Your task to perform on an android device: turn on data saver in the chrome app Image 0: 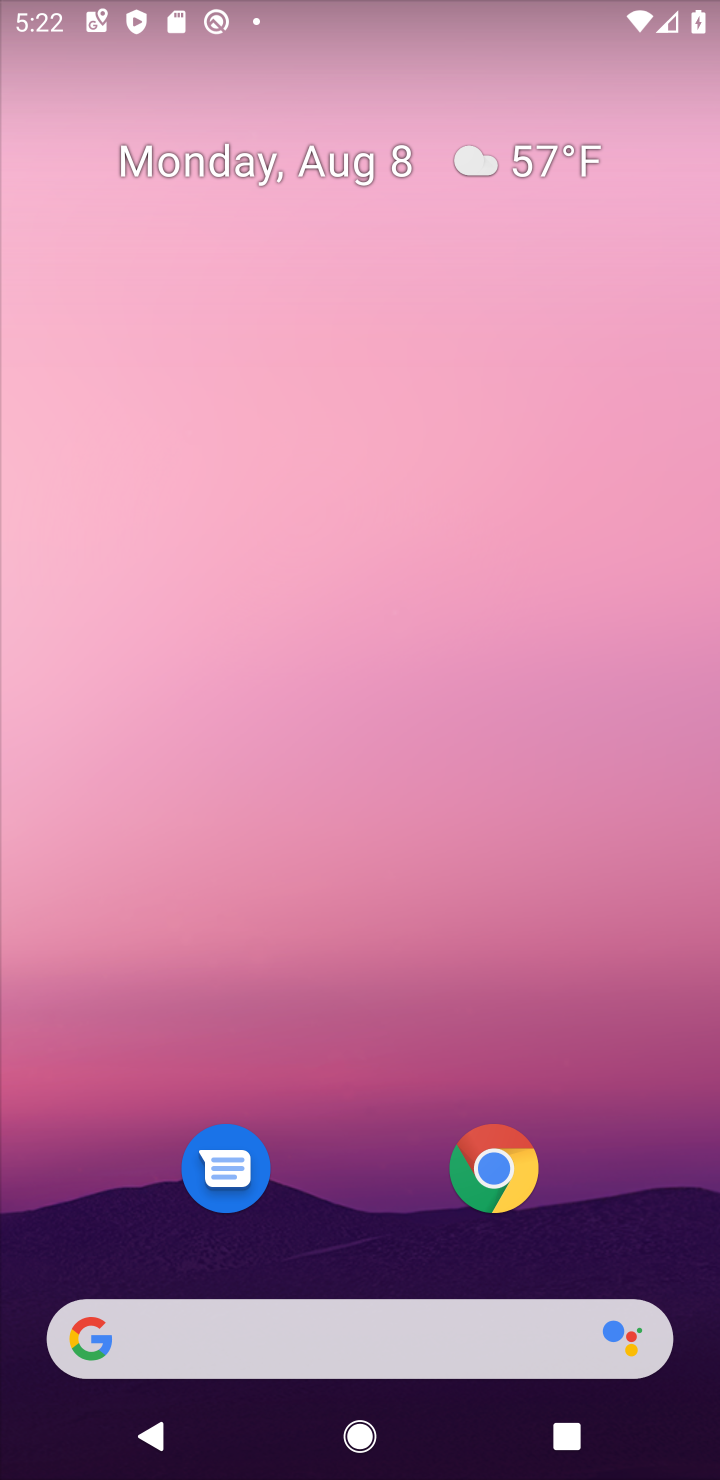
Step 0: click (465, 1187)
Your task to perform on an android device: turn on data saver in the chrome app Image 1: 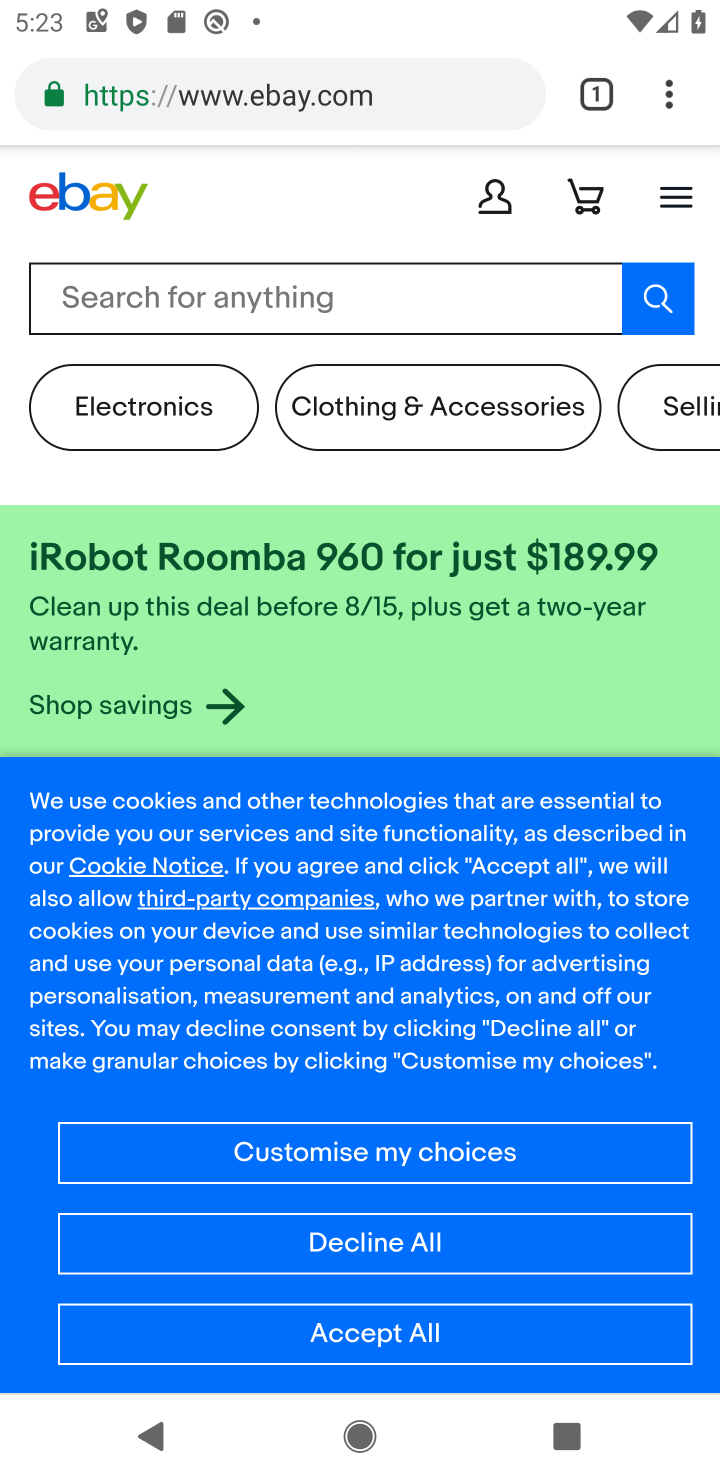
Step 1: drag from (677, 76) to (425, 1242)
Your task to perform on an android device: turn on data saver in the chrome app Image 2: 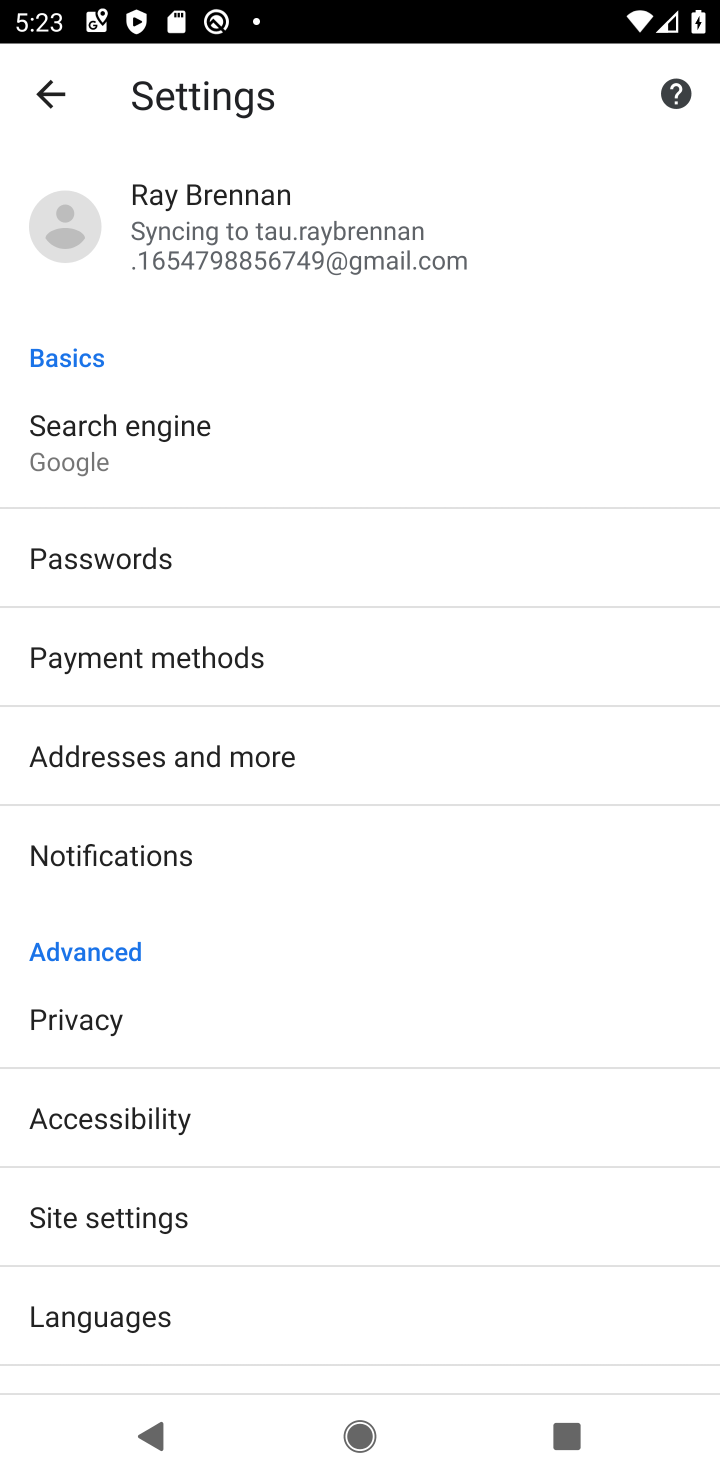
Step 2: drag from (230, 1255) to (196, 290)
Your task to perform on an android device: turn on data saver in the chrome app Image 3: 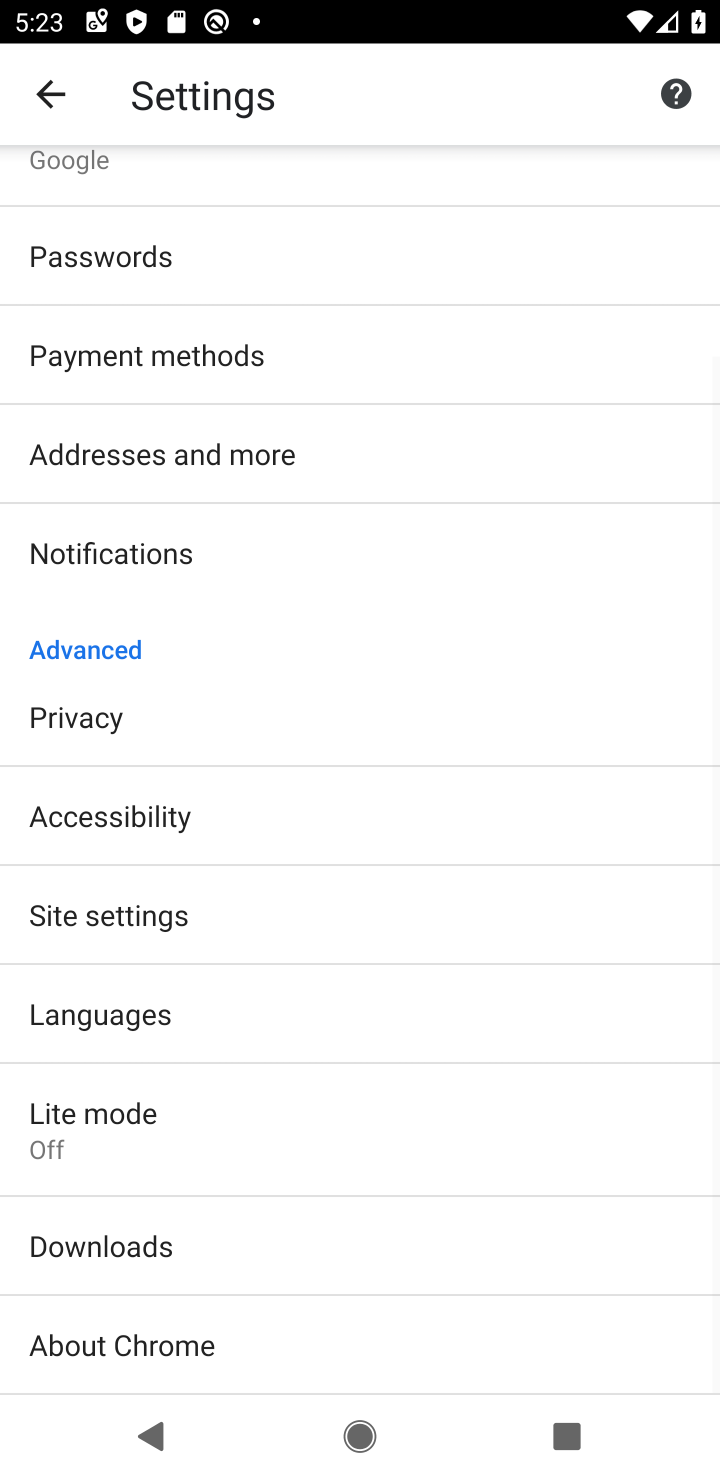
Step 3: click (140, 1125)
Your task to perform on an android device: turn on data saver in the chrome app Image 4: 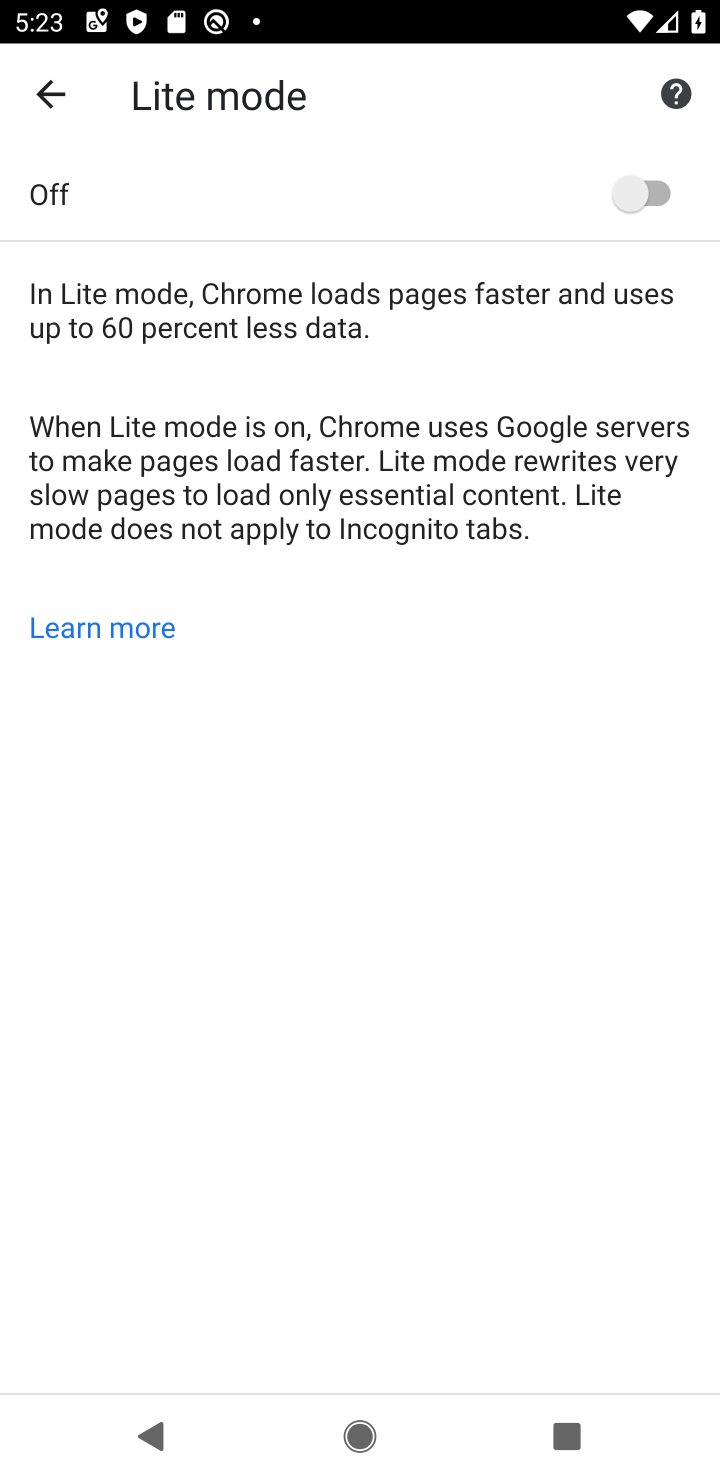
Step 4: click (656, 189)
Your task to perform on an android device: turn on data saver in the chrome app Image 5: 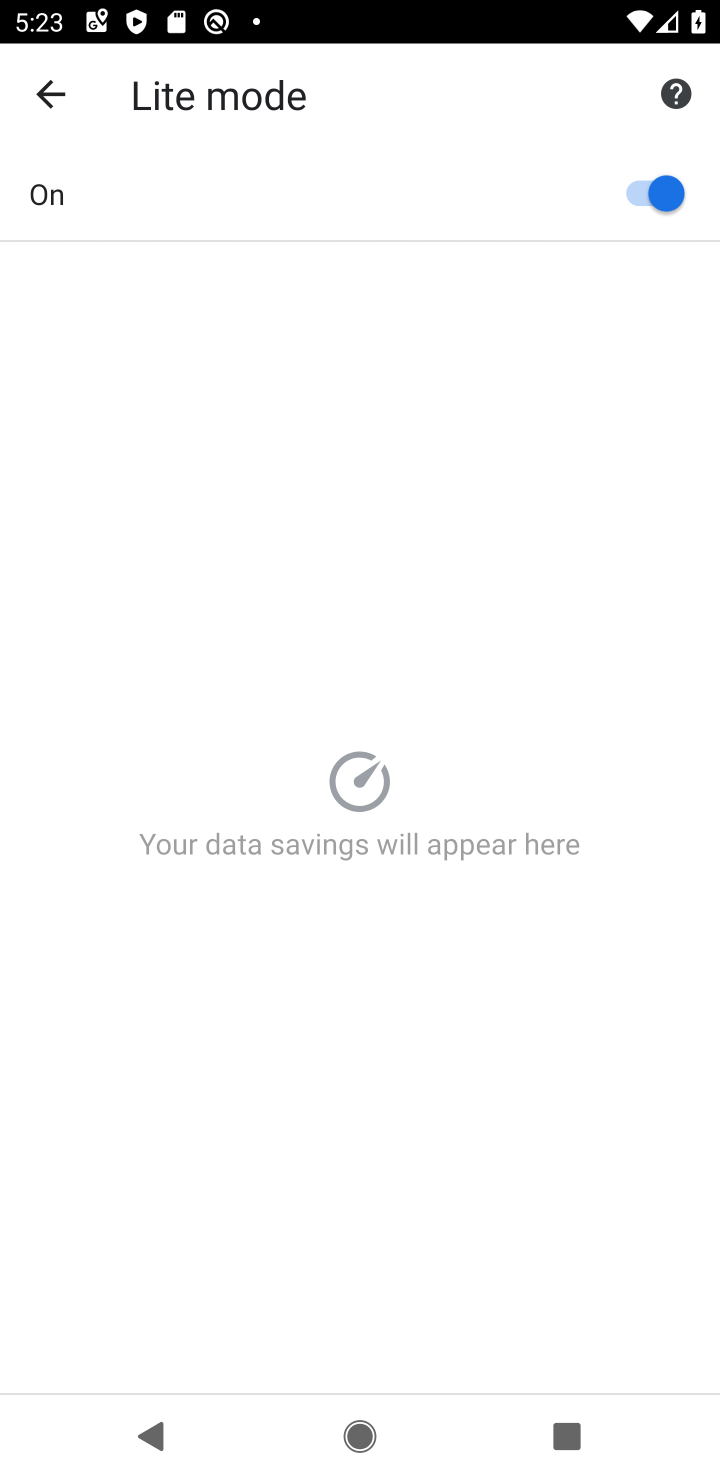
Step 5: task complete